Your task to perform on an android device: turn off sleep mode Image 0: 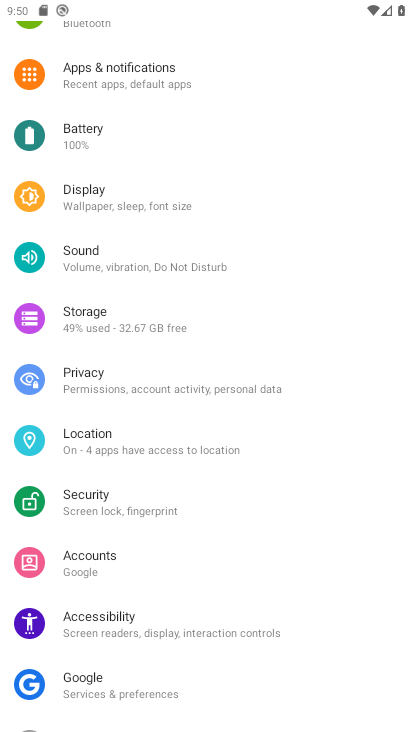
Step 0: press home button
Your task to perform on an android device: turn off sleep mode Image 1: 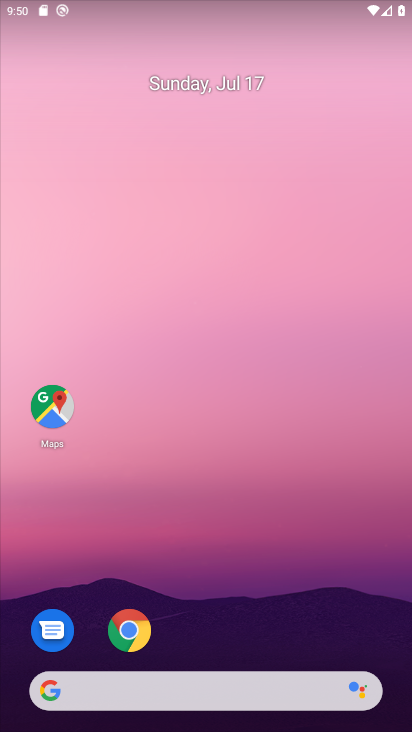
Step 1: drag from (204, 591) to (252, 52)
Your task to perform on an android device: turn off sleep mode Image 2: 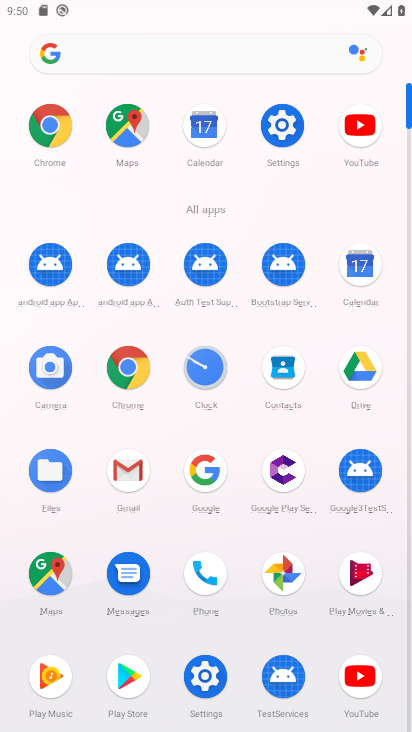
Step 2: click (208, 681)
Your task to perform on an android device: turn off sleep mode Image 3: 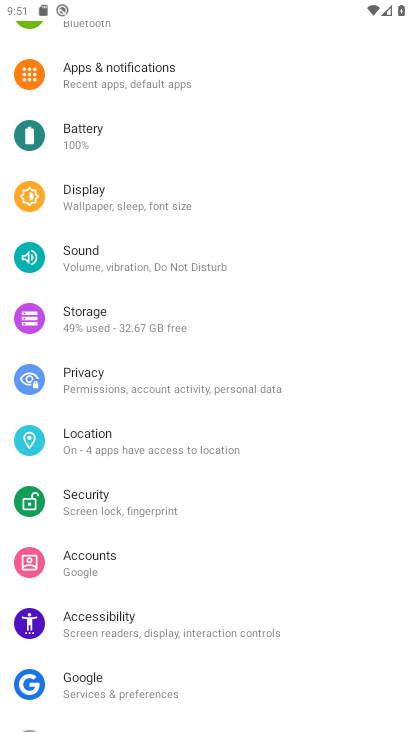
Step 3: drag from (197, 107) to (234, 688)
Your task to perform on an android device: turn off sleep mode Image 4: 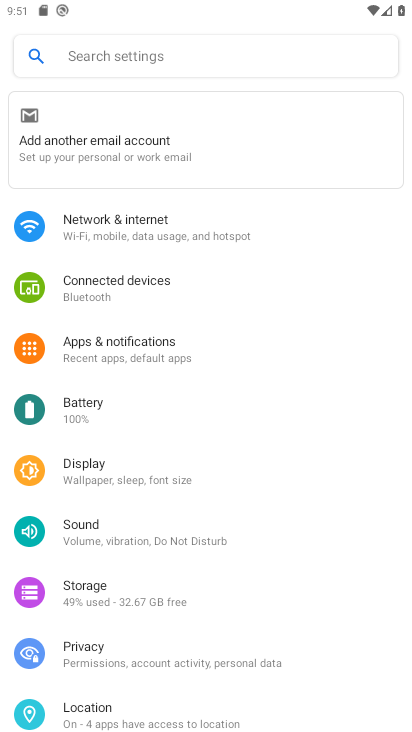
Step 4: click (152, 57)
Your task to perform on an android device: turn off sleep mode Image 5: 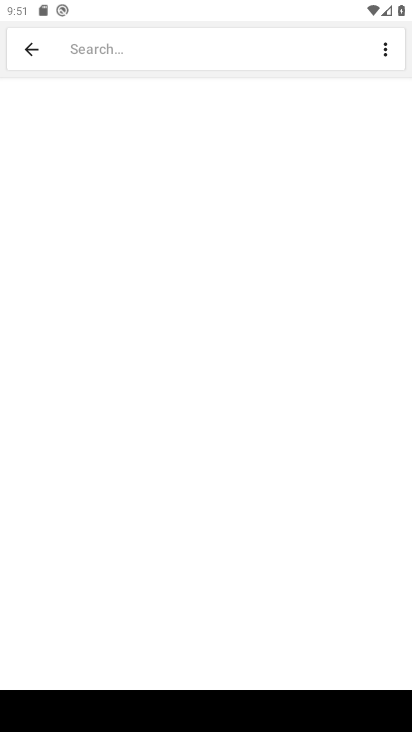
Step 5: type "sleep mode"
Your task to perform on an android device: turn off sleep mode Image 6: 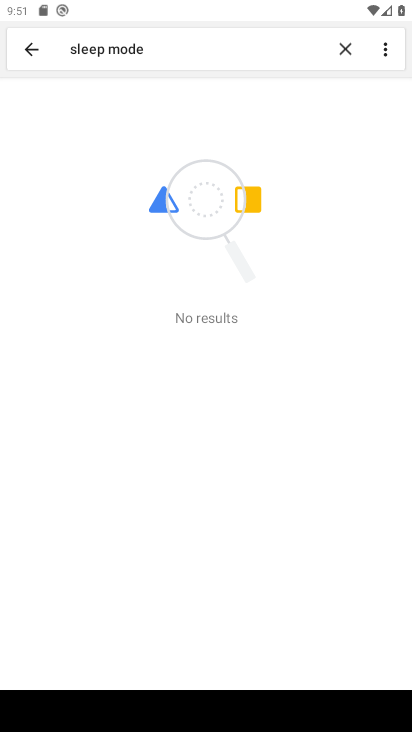
Step 6: task complete